Your task to perform on an android device: turn off notifications in google photos Image 0: 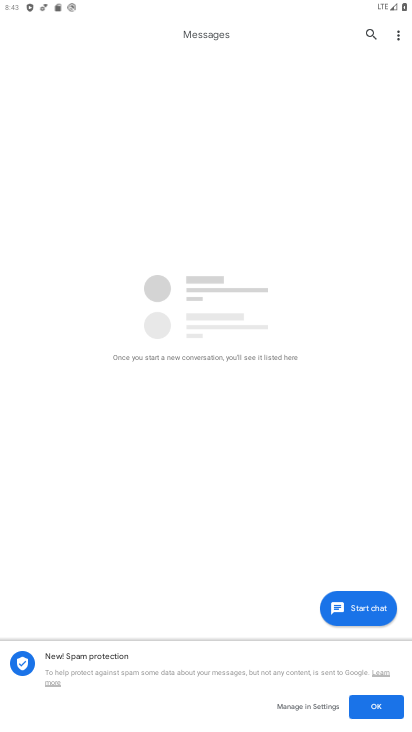
Step 0: press home button
Your task to perform on an android device: turn off notifications in google photos Image 1: 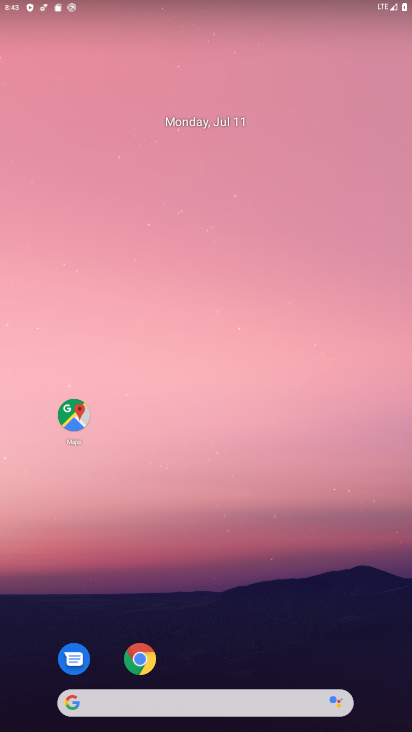
Step 1: drag from (12, 714) to (333, 137)
Your task to perform on an android device: turn off notifications in google photos Image 2: 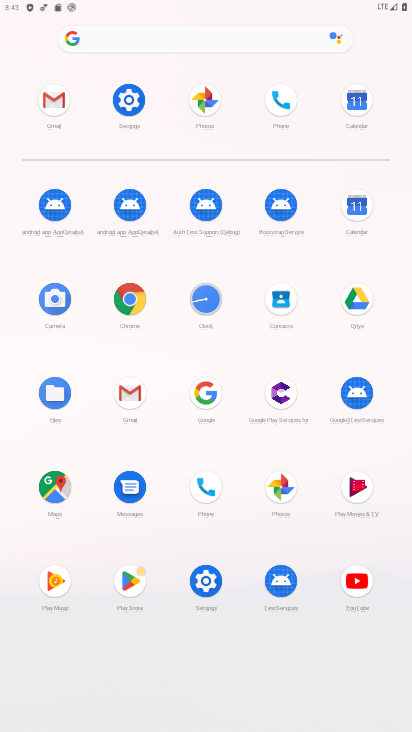
Step 2: click (268, 496)
Your task to perform on an android device: turn off notifications in google photos Image 3: 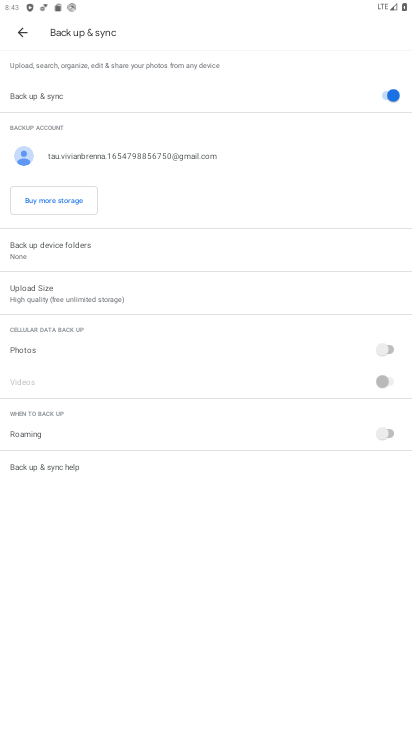
Step 3: click (17, 33)
Your task to perform on an android device: turn off notifications in google photos Image 4: 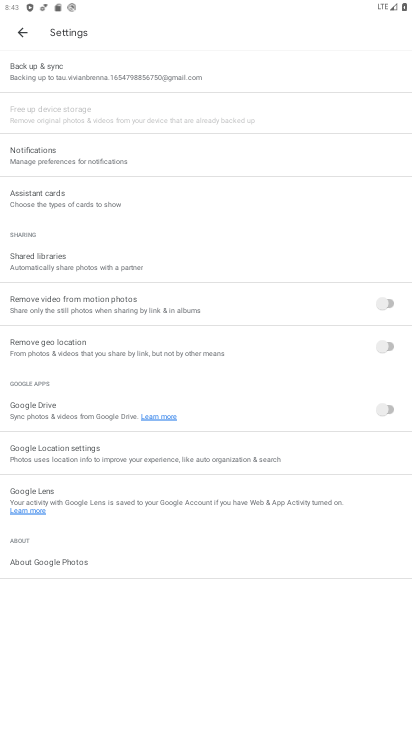
Step 4: click (71, 145)
Your task to perform on an android device: turn off notifications in google photos Image 5: 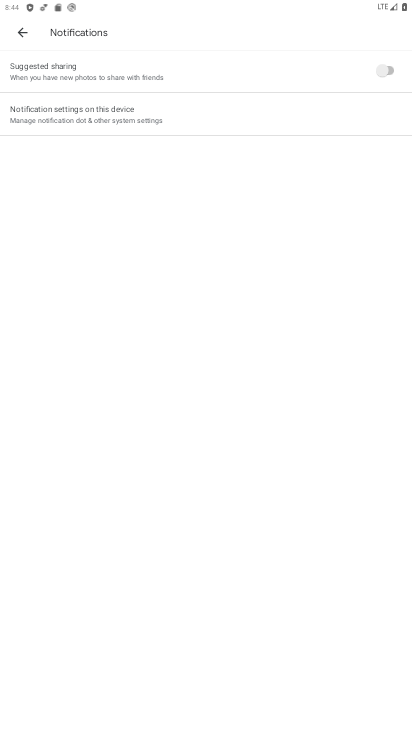
Step 5: task complete